Your task to perform on an android device: toggle wifi Image 0: 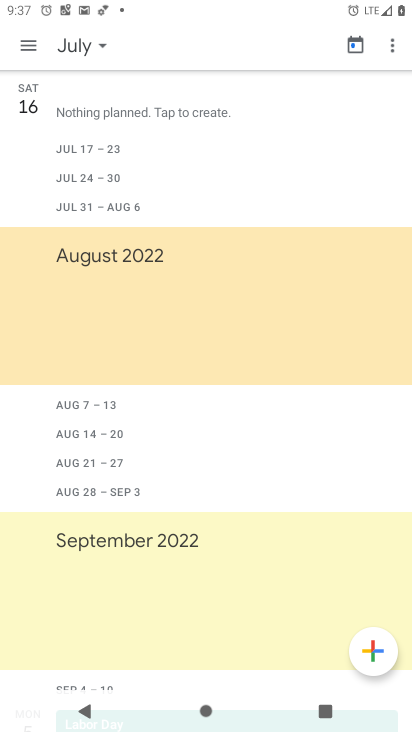
Step 0: press home button
Your task to perform on an android device: toggle wifi Image 1: 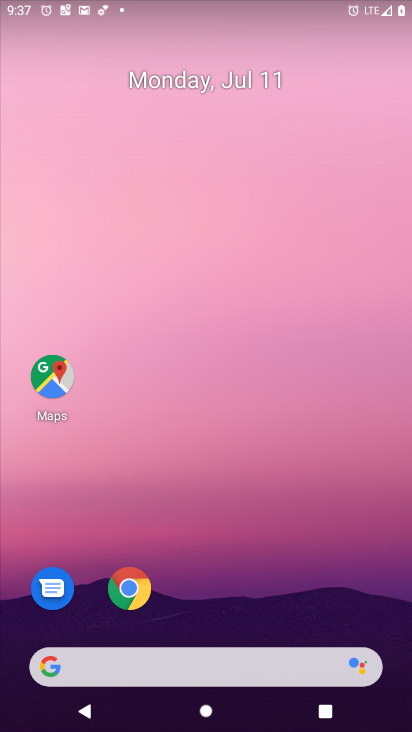
Step 1: drag from (209, 669) to (352, 16)
Your task to perform on an android device: toggle wifi Image 2: 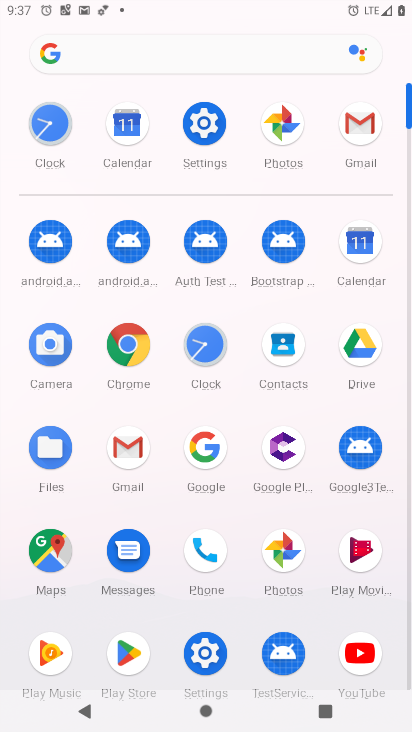
Step 2: click (198, 111)
Your task to perform on an android device: toggle wifi Image 3: 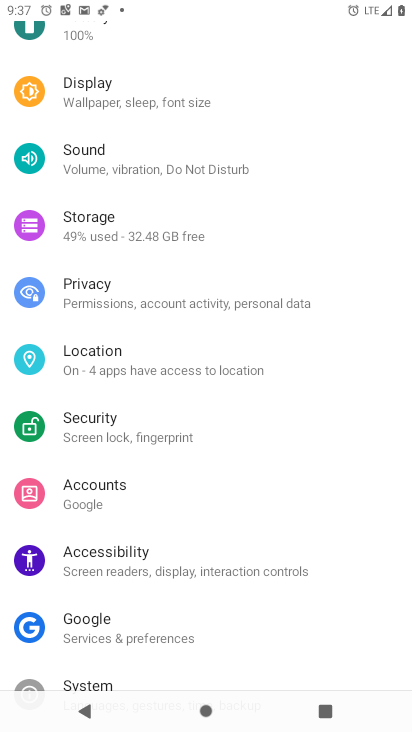
Step 3: drag from (259, 80) to (241, 563)
Your task to perform on an android device: toggle wifi Image 4: 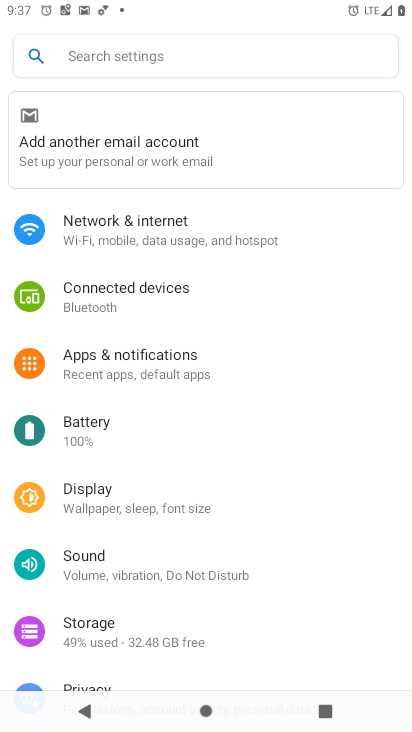
Step 4: click (152, 231)
Your task to perform on an android device: toggle wifi Image 5: 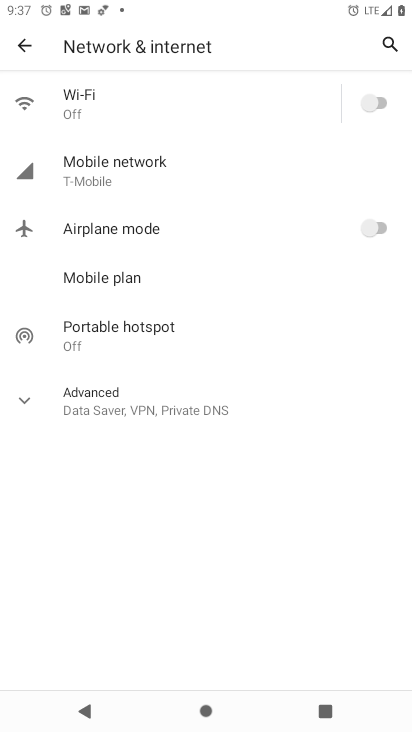
Step 5: click (384, 97)
Your task to perform on an android device: toggle wifi Image 6: 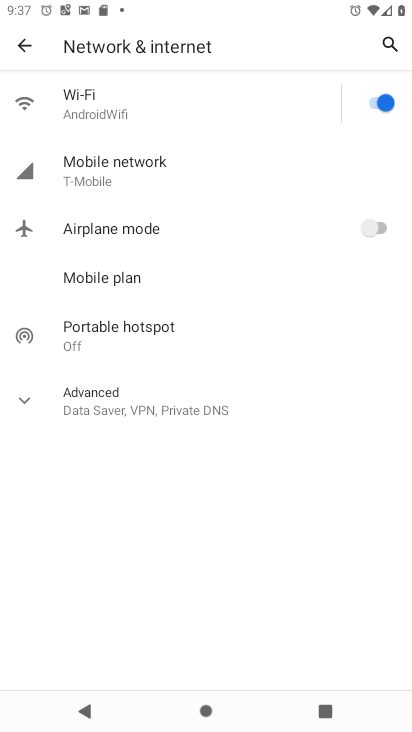
Step 6: task complete